Your task to perform on an android device: Go to CNN.com Image 0: 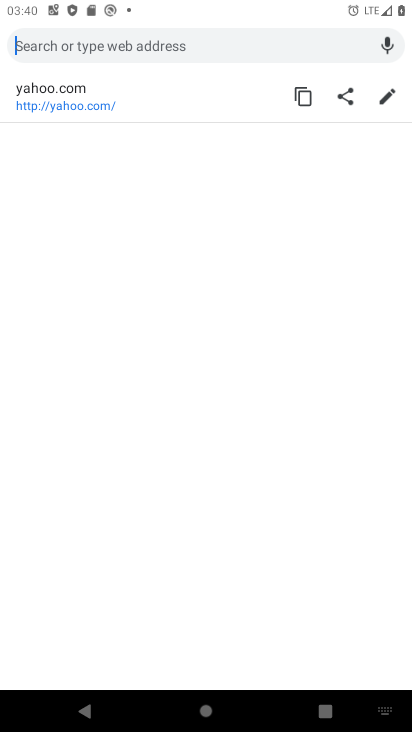
Step 0: type "cnn.com"
Your task to perform on an android device: Go to CNN.com Image 1: 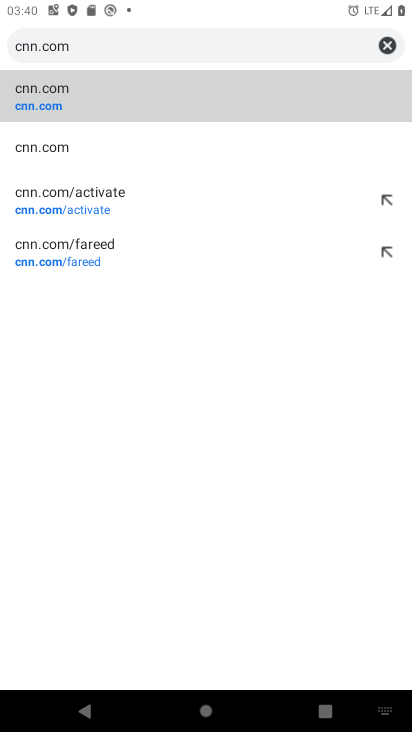
Step 1: click (36, 93)
Your task to perform on an android device: Go to CNN.com Image 2: 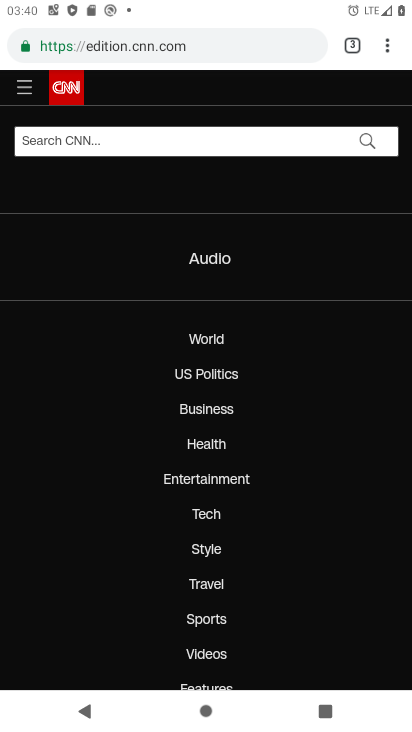
Step 2: task complete